Your task to perform on an android device: toggle data saver in the chrome app Image 0: 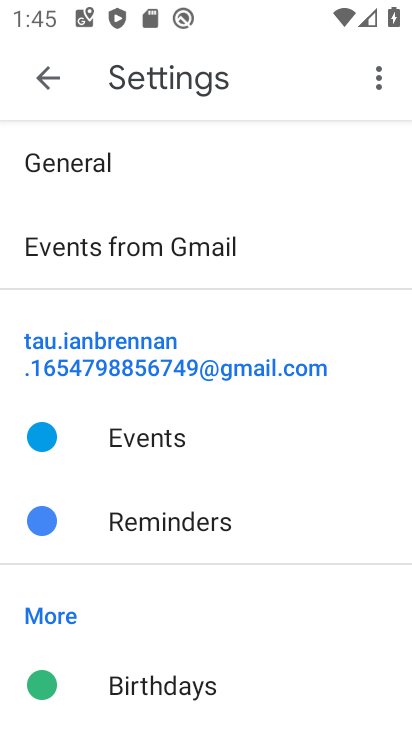
Step 0: press home button
Your task to perform on an android device: toggle data saver in the chrome app Image 1: 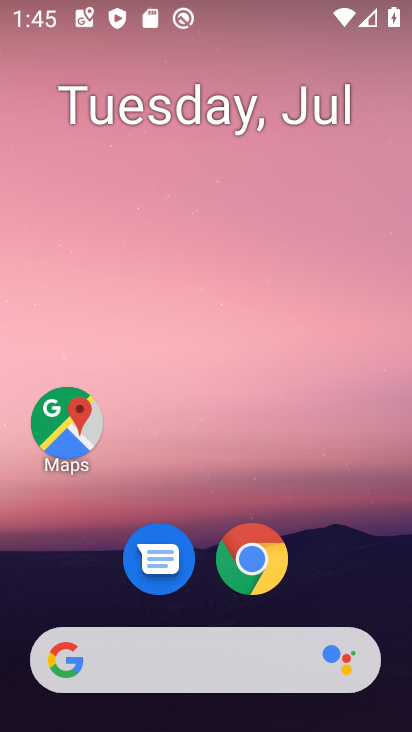
Step 1: drag from (346, 605) to (348, 82)
Your task to perform on an android device: toggle data saver in the chrome app Image 2: 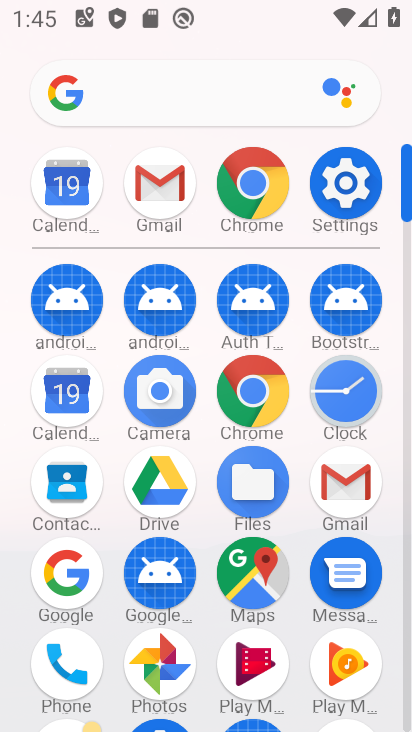
Step 2: click (257, 395)
Your task to perform on an android device: toggle data saver in the chrome app Image 3: 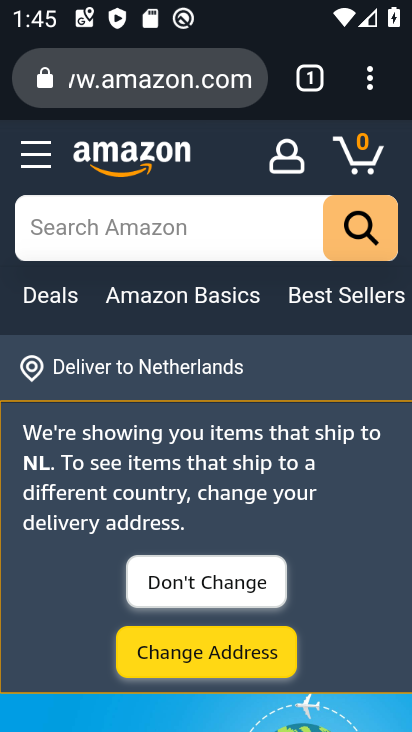
Step 3: click (369, 92)
Your task to perform on an android device: toggle data saver in the chrome app Image 4: 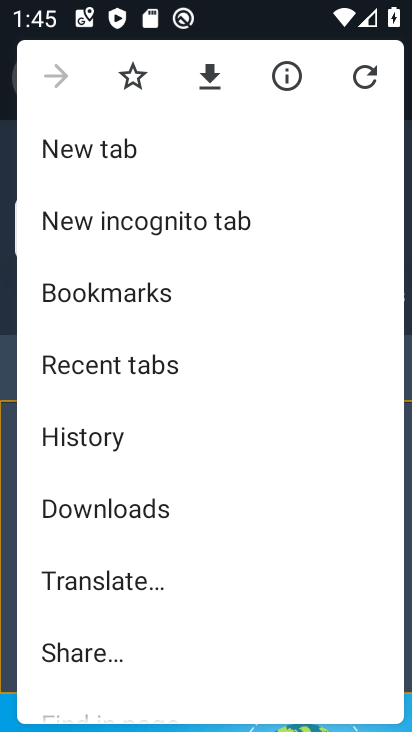
Step 4: drag from (335, 458) to (334, 384)
Your task to perform on an android device: toggle data saver in the chrome app Image 5: 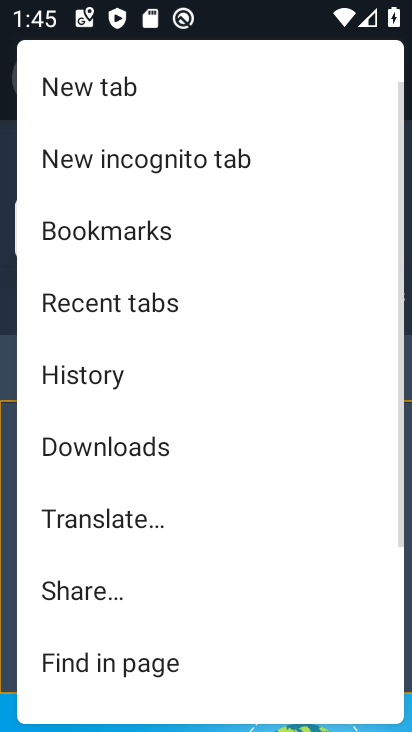
Step 5: drag from (318, 487) to (318, 404)
Your task to perform on an android device: toggle data saver in the chrome app Image 6: 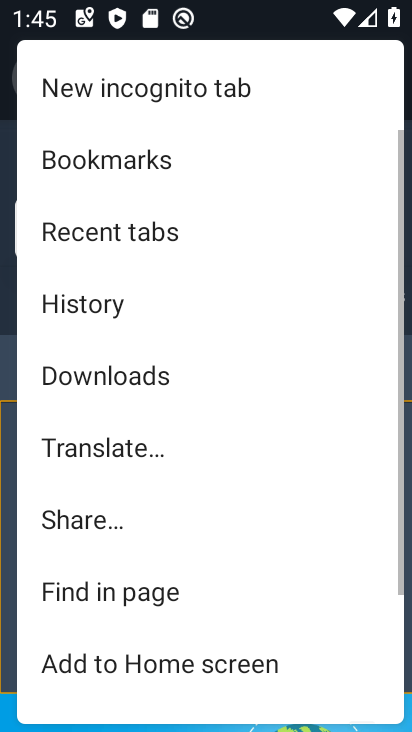
Step 6: drag from (295, 499) to (297, 394)
Your task to perform on an android device: toggle data saver in the chrome app Image 7: 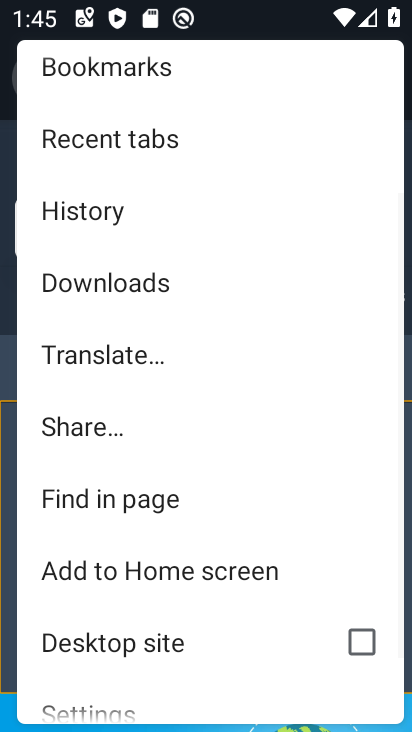
Step 7: drag from (301, 483) to (302, 349)
Your task to perform on an android device: toggle data saver in the chrome app Image 8: 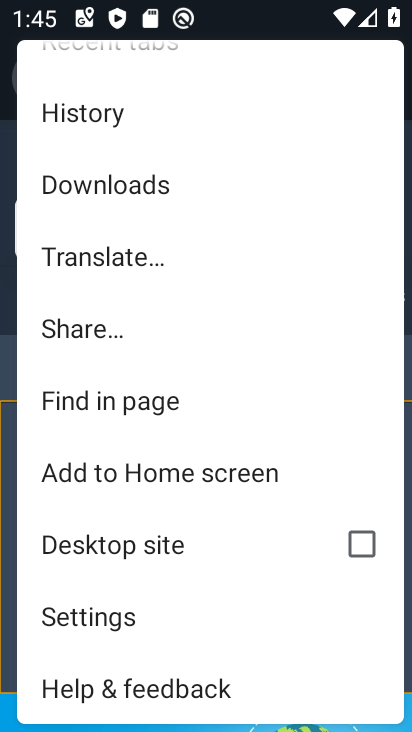
Step 8: drag from (283, 514) to (290, 420)
Your task to perform on an android device: toggle data saver in the chrome app Image 9: 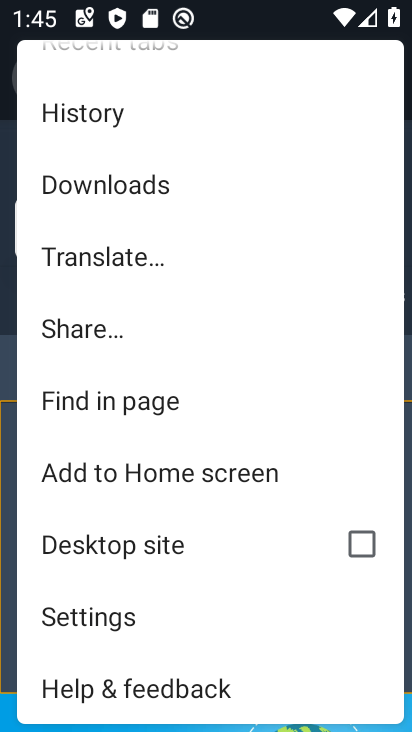
Step 9: click (184, 622)
Your task to perform on an android device: toggle data saver in the chrome app Image 10: 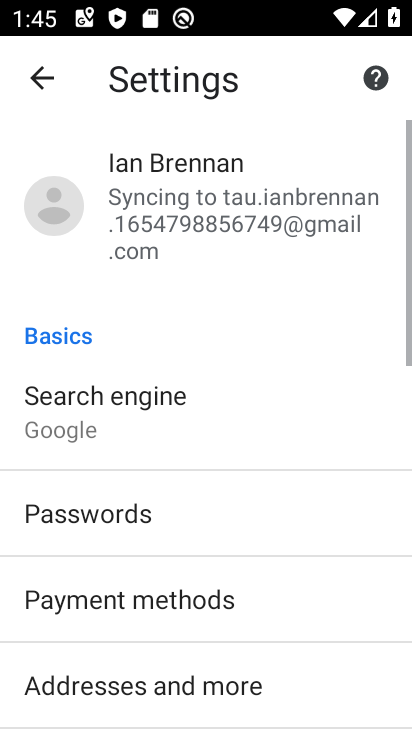
Step 10: drag from (281, 567) to (292, 480)
Your task to perform on an android device: toggle data saver in the chrome app Image 11: 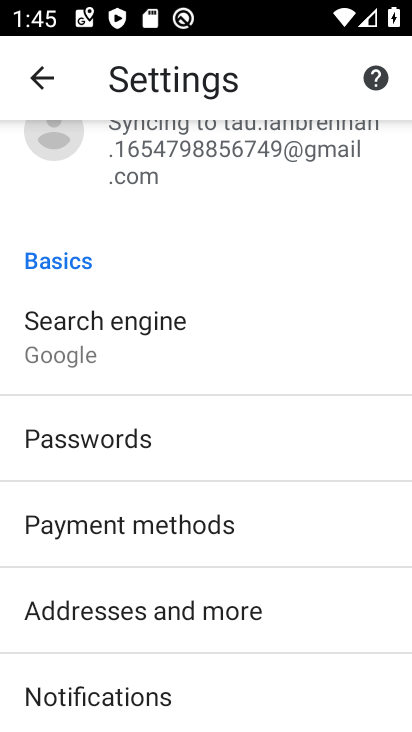
Step 11: drag from (332, 584) to (341, 476)
Your task to perform on an android device: toggle data saver in the chrome app Image 12: 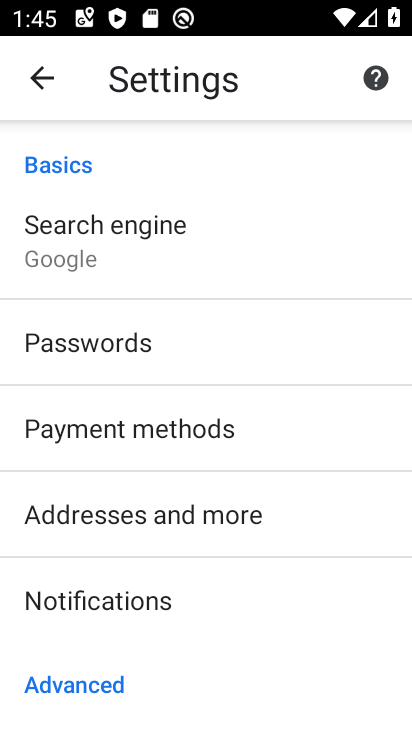
Step 12: drag from (304, 579) to (304, 484)
Your task to perform on an android device: toggle data saver in the chrome app Image 13: 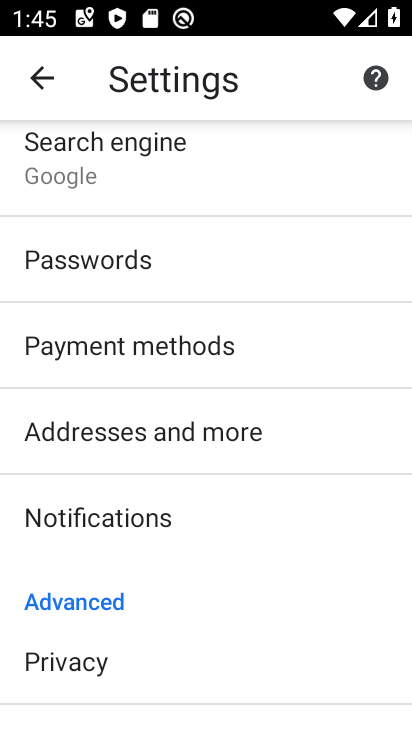
Step 13: drag from (297, 563) to (296, 486)
Your task to perform on an android device: toggle data saver in the chrome app Image 14: 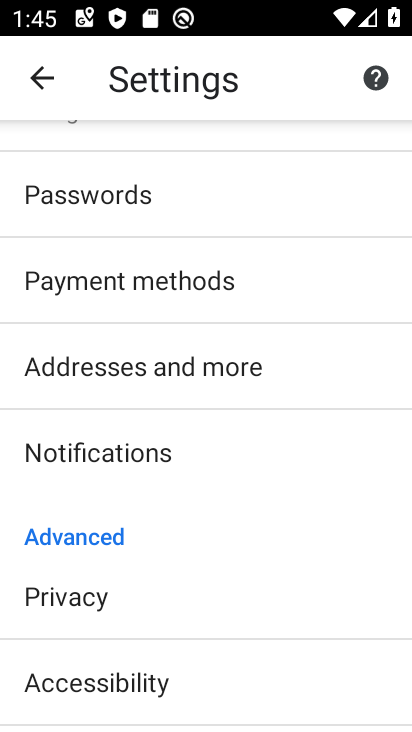
Step 14: drag from (291, 558) to (292, 441)
Your task to perform on an android device: toggle data saver in the chrome app Image 15: 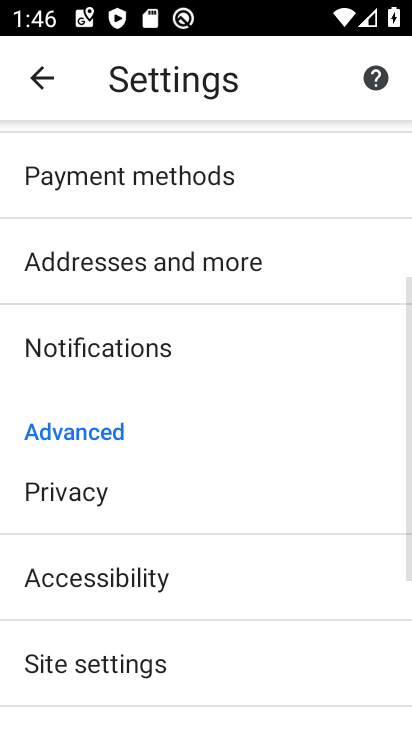
Step 15: drag from (290, 567) to (293, 471)
Your task to perform on an android device: toggle data saver in the chrome app Image 16: 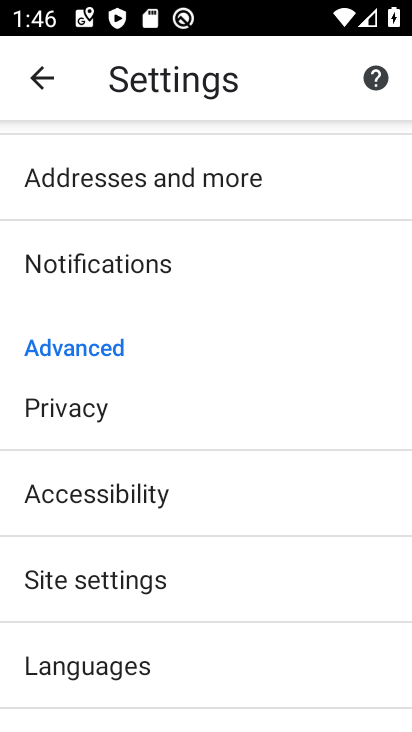
Step 16: drag from (289, 589) to (289, 488)
Your task to perform on an android device: toggle data saver in the chrome app Image 17: 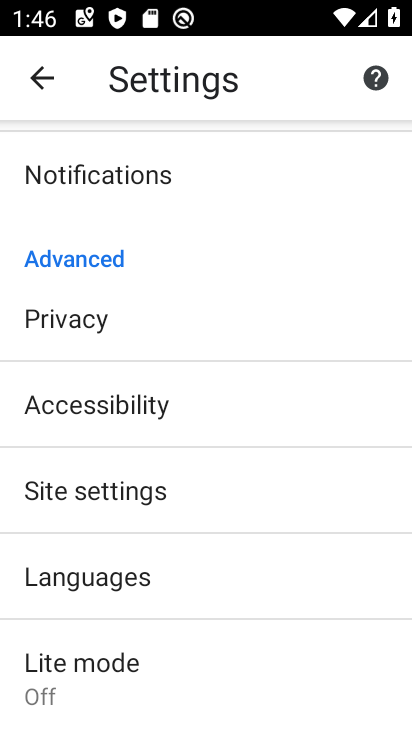
Step 17: drag from (289, 566) to (288, 464)
Your task to perform on an android device: toggle data saver in the chrome app Image 18: 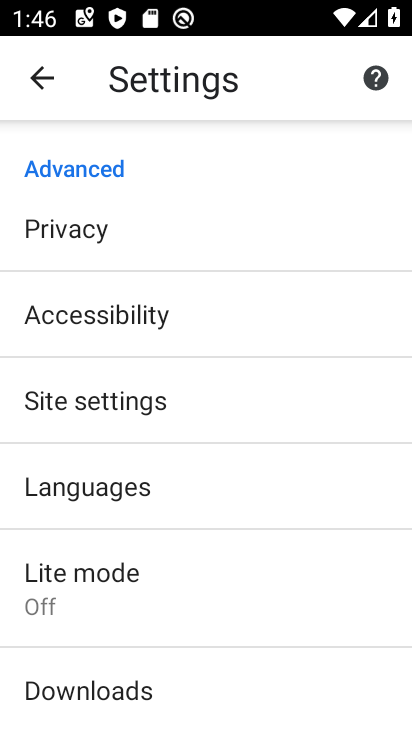
Step 18: drag from (287, 550) to (287, 394)
Your task to perform on an android device: toggle data saver in the chrome app Image 19: 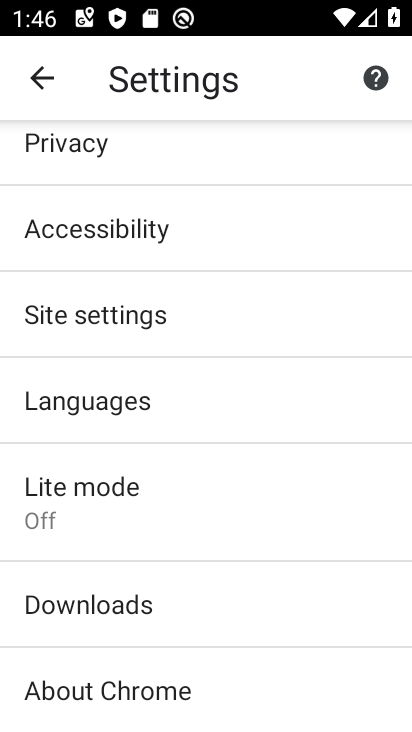
Step 19: click (287, 514)
Your task to perform on an android device: toggle data saver in the chrome app Image 20: 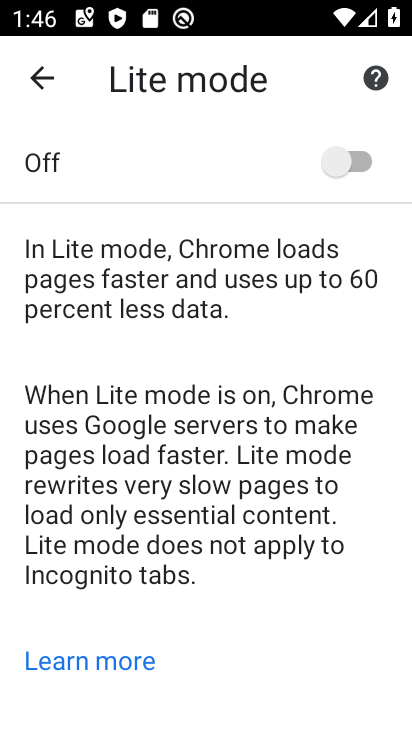
Step 20: click (341, 180)
Your task to perform on an android device: toggle data saver in the chrome app Image 21: 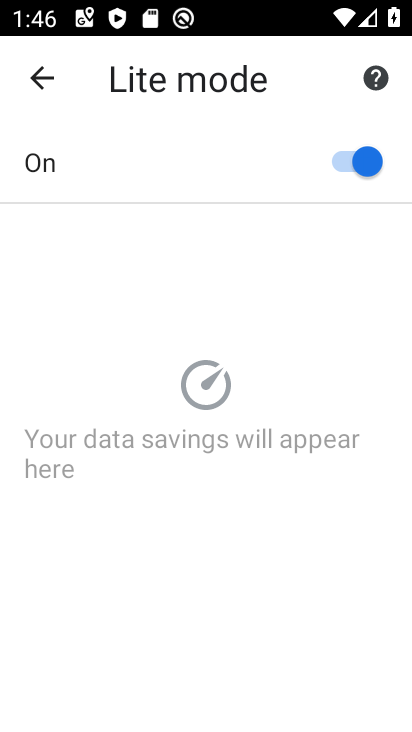
Step 21: task complete